Your task to perform on an android device: Open settings on Google Maps Image 0: 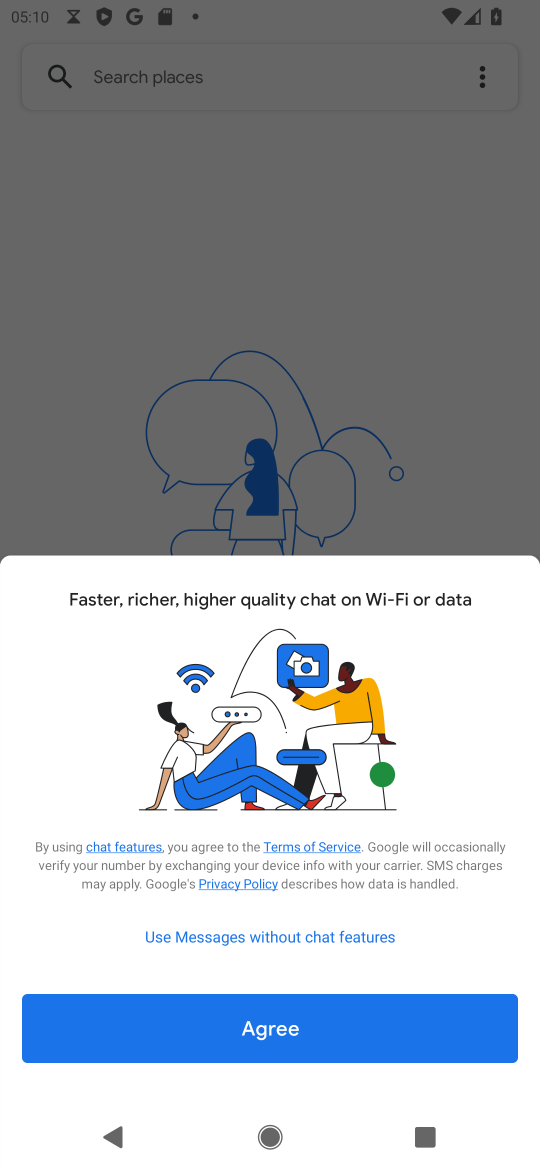
Step 0: press home button
Your task to perform on an android device: Open settings on Google Maps Image 1: 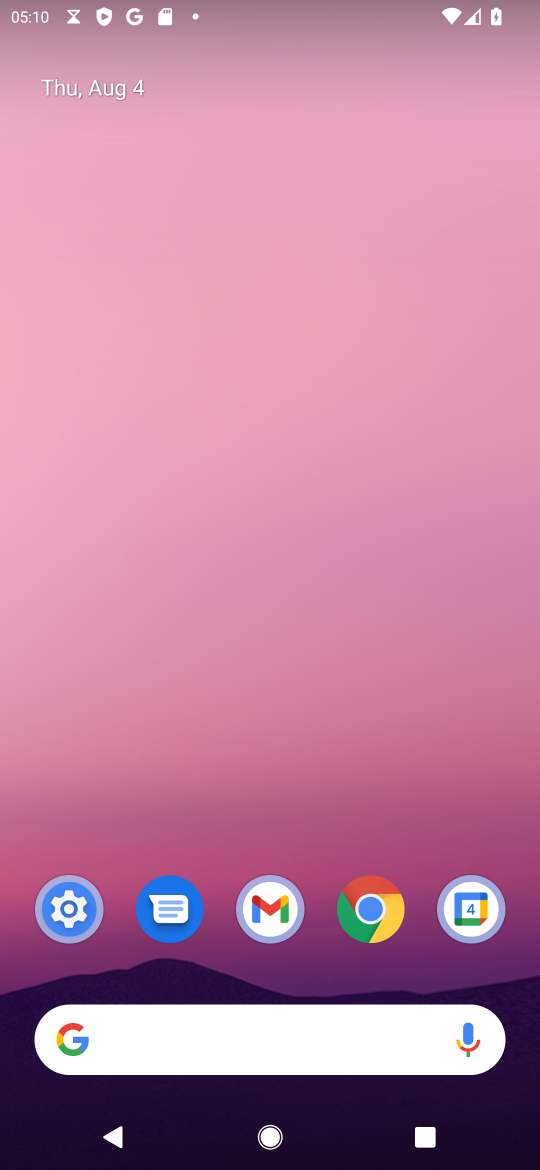
Step 1: drag from (222, 1044) to (469, 351)
Your task to perform on an android device: Open settings on Google Maps Image 2: 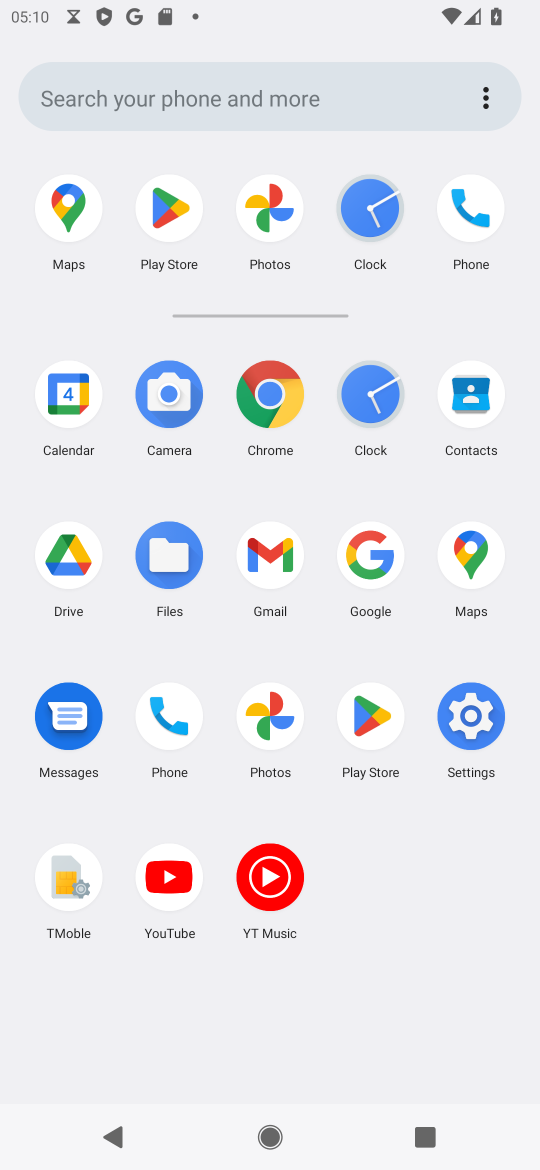
Step 2: click (57, 207)
Your task to perform on an android device: Open settings on Google Maps Image 3: 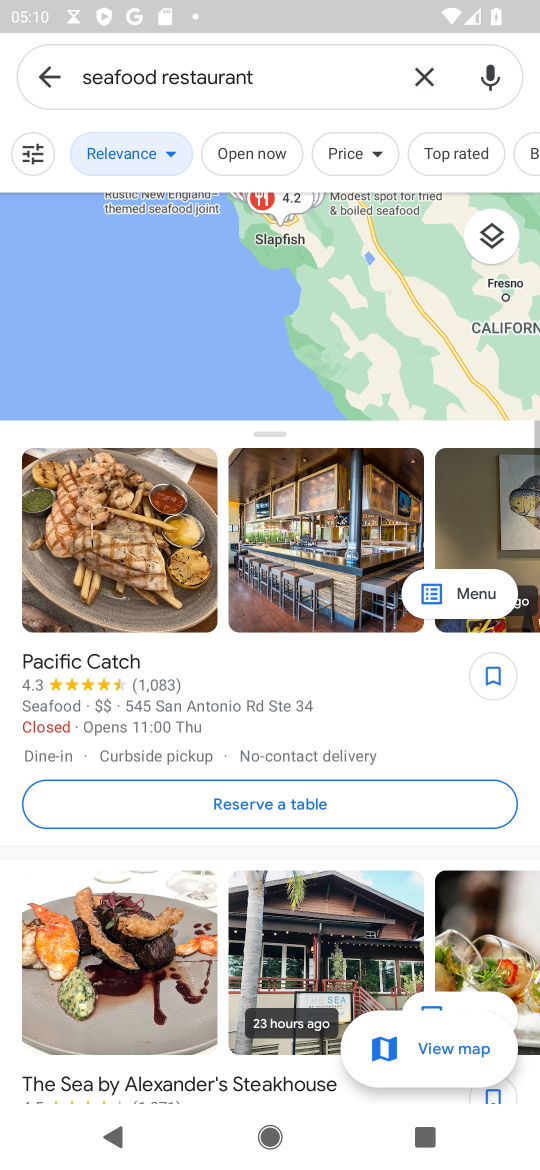
Step 3: click (430, 68)
Your task to perform on an android device: Open settings on Google Maps Image 4: 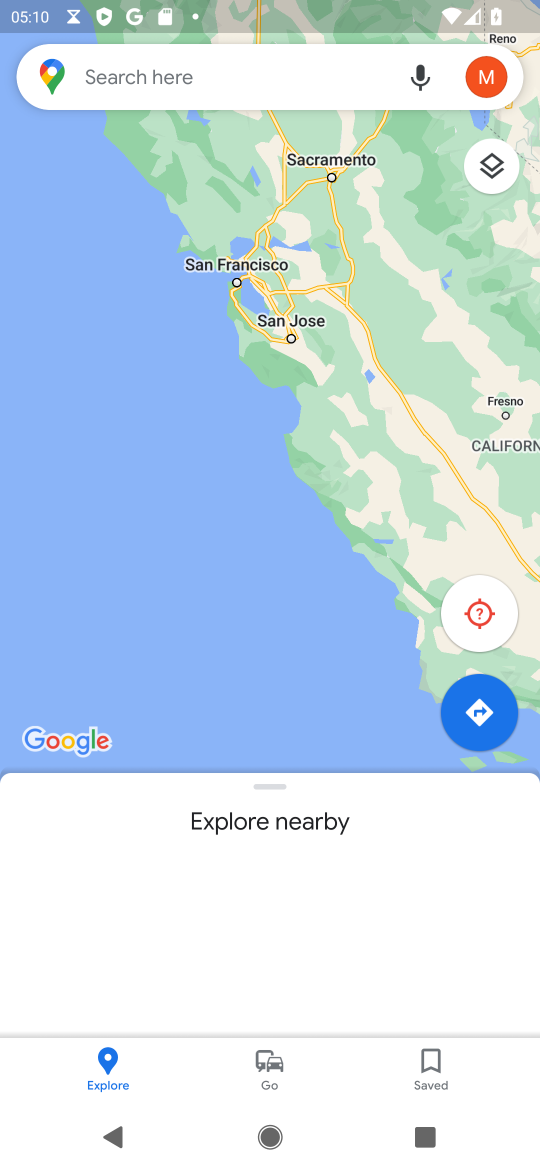
Step 4: click (491, 78)
Your task to perform on an android device: Open settings on Google Maps Image 5: 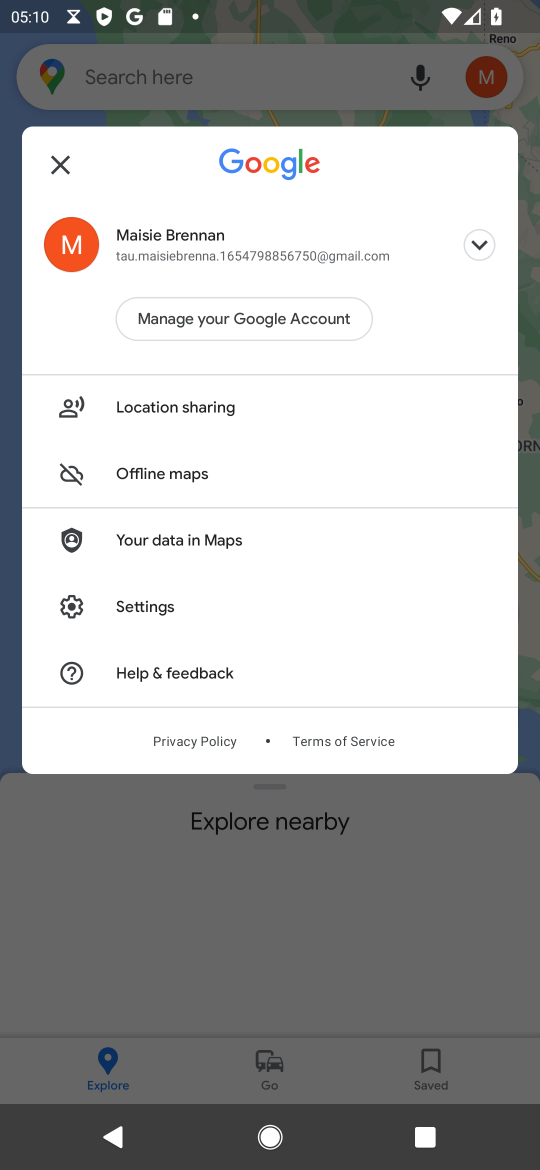
Step 5: click (220, 618)
Your task to perform on an android device: Open settings on Google Maps Image 6: 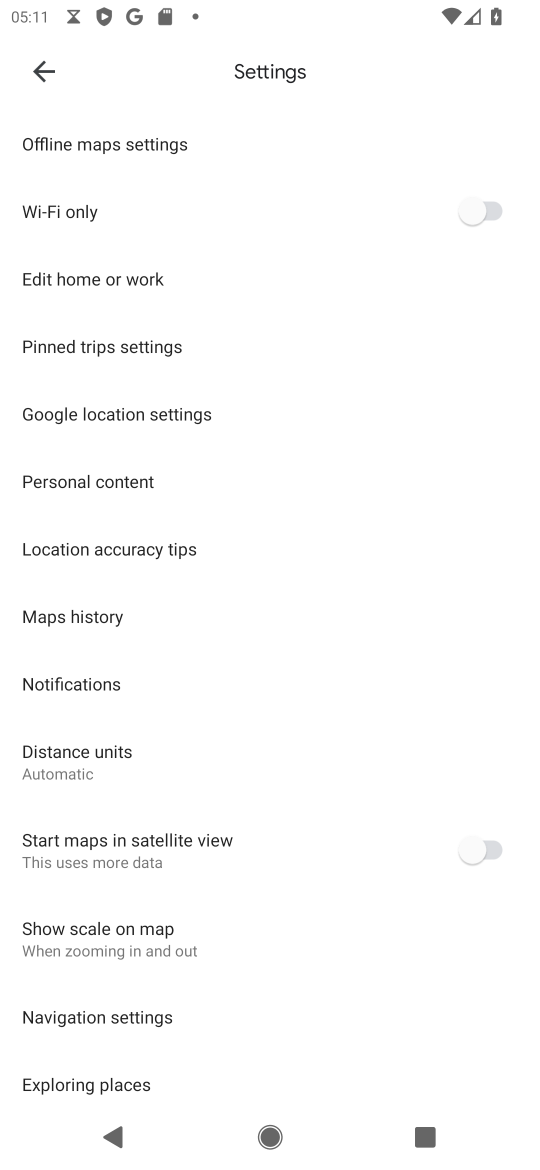
Step 6: task complete